Your task to perform on an android device: Open calendar and show me the fourth week of next month Image 0: 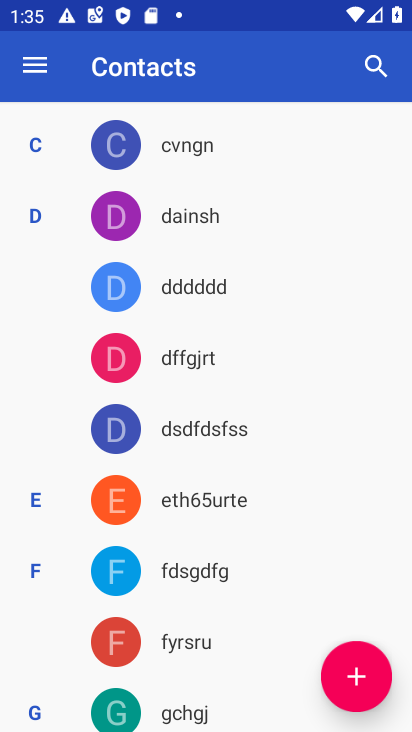
Step 0: press home button
Your task to perform on an android device: Open calendar and show me the fourth week of next month Image 1: 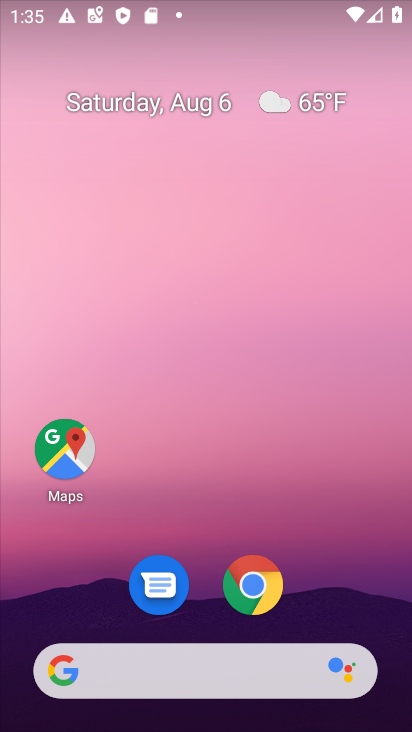
Step 1: drag from (214, 516) to (283, 0)
Your task to perform on an android device: Open calendar and show me the fourth week of next month Image 2: 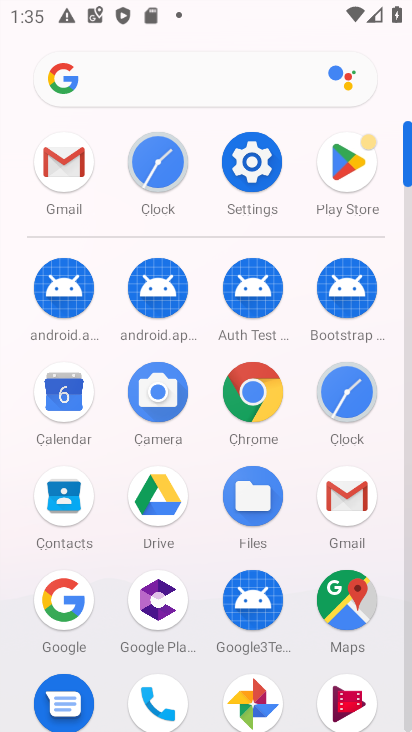
Step 2: click (64, 395)
Your task to perform on an android device: Open calendar and show me the fourth week of next month Image 3: 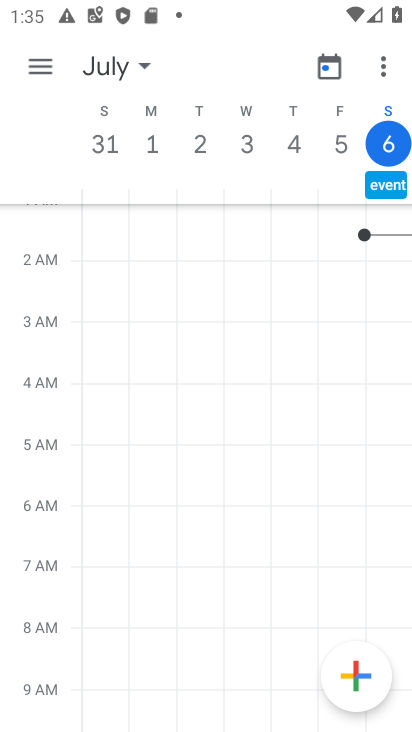
Step 3: click (48, 70)
Your task to perform on an android device: Open calendar and show me the fourth week of next month Image 4: 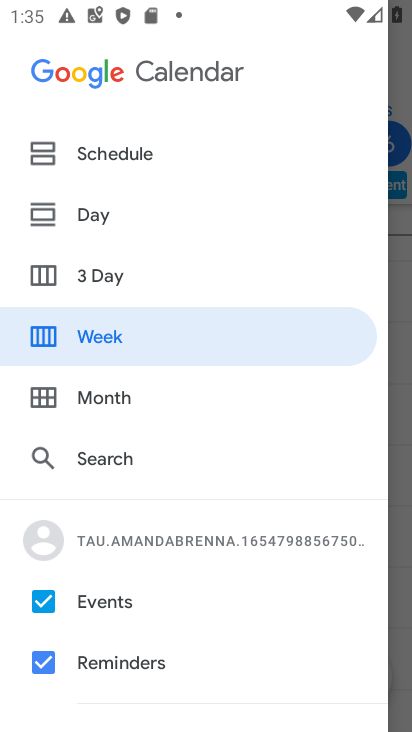
Step 4: click (53, 394)
Your task to perform on an android device: Open calendar and show me the fourth week of next month Image 5: 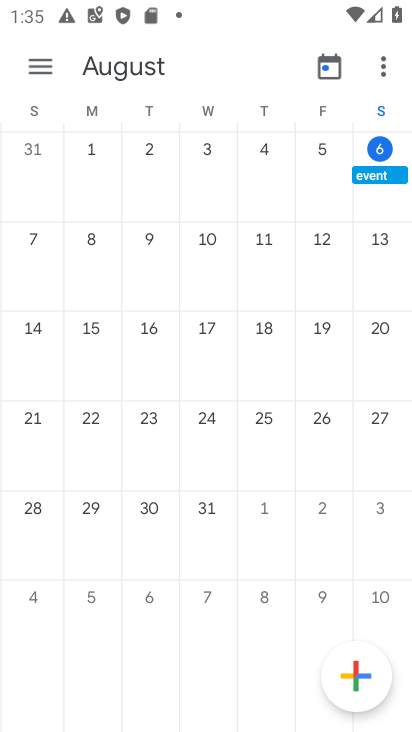
Step 5: drag from (375, 364) to (28, 396)
Your task to perform on an android device: Open calendar and show me the fourth week of next month Image 6: 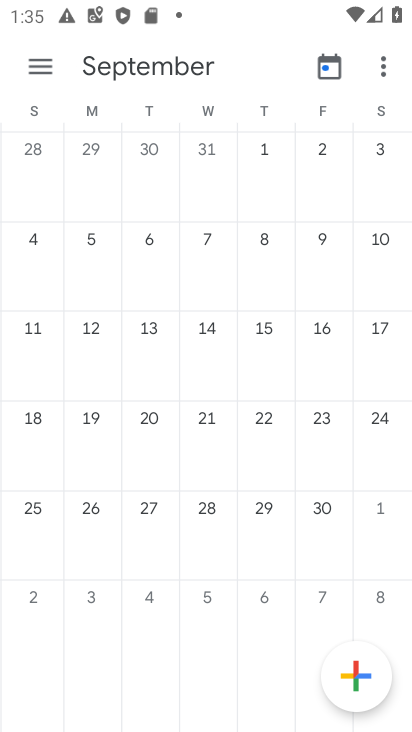
Step 6: click (31, 507)
Your task to perform on an android device: Open calendar and show me the fourth week of next month Image 7: 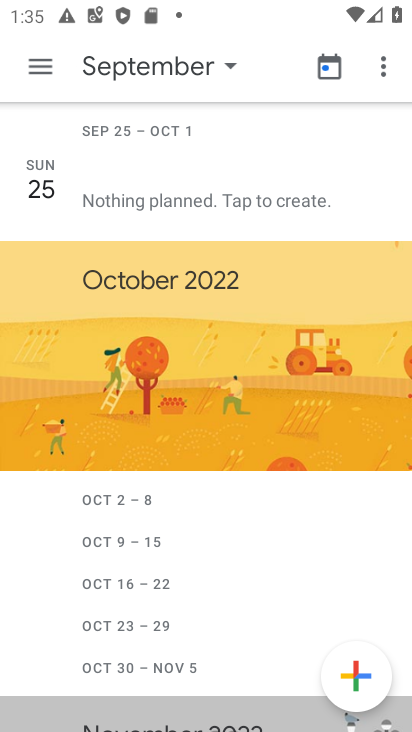
Step 7: click (39, 72)
Your task to perform on an android device: Open calendar and show me the fourth week of next month Image 8: 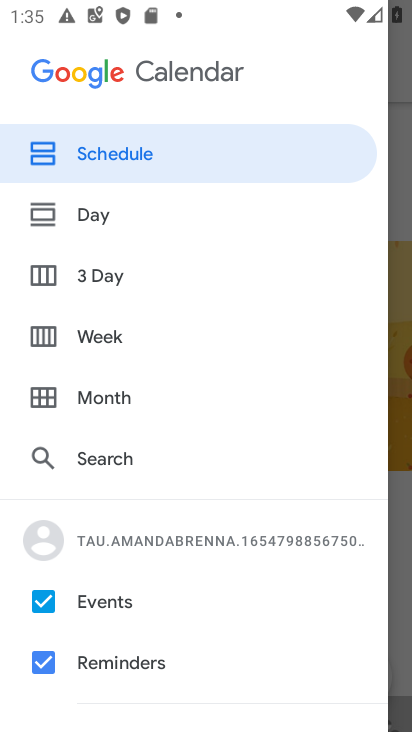
Step 8: click (55, 396)
Your task to perform on an android device: Open calendar and show me the fourth week of next month Image 9: 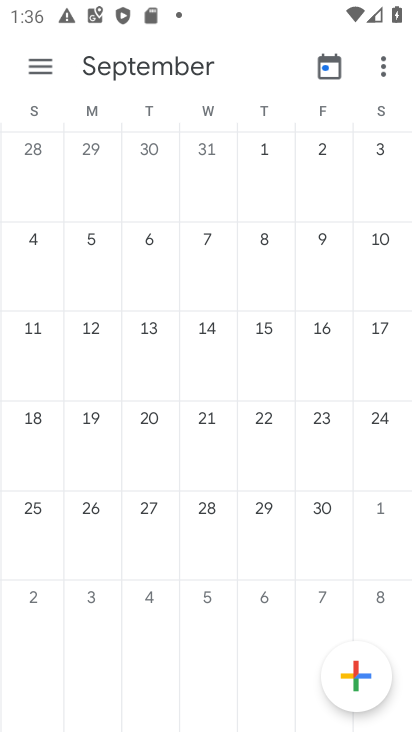
Step 9: click (35, 508)
Your task to perform on an android device: Open calendar and show me the fourth week of next month Image 10: 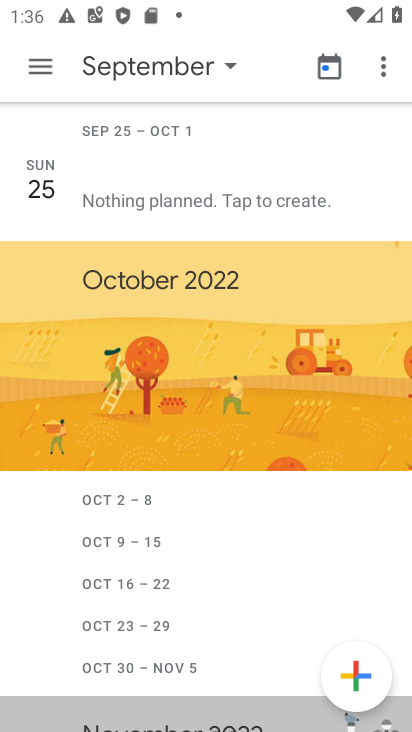
Step 10: click (46, 64)
Your task to perform on an android device: Open calendar and show me the fourth week of next month Image 11: 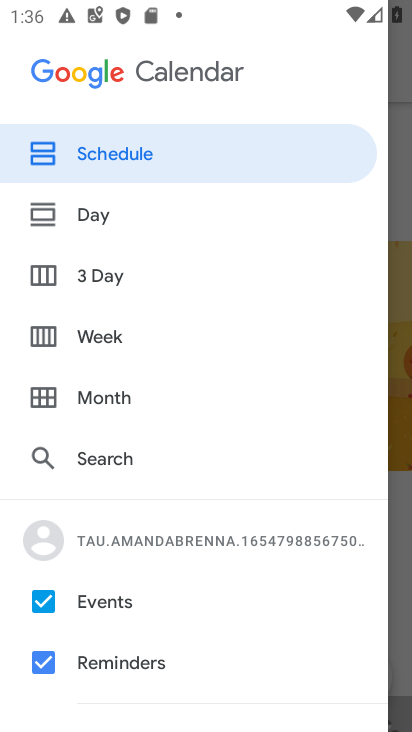
Step 11: click (46, 337)
Your task to perform on an android device: Open calendar and show me the fourth week of next month Image 12: 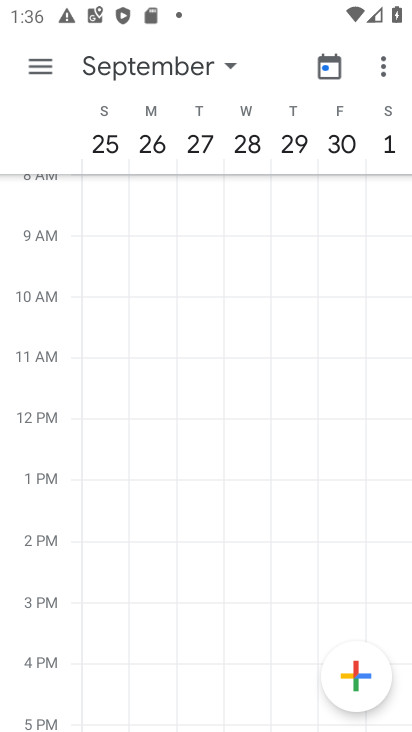
Step 12: task complete